Your task to perform on an android device: Do I have any events this weekend? Image 0: 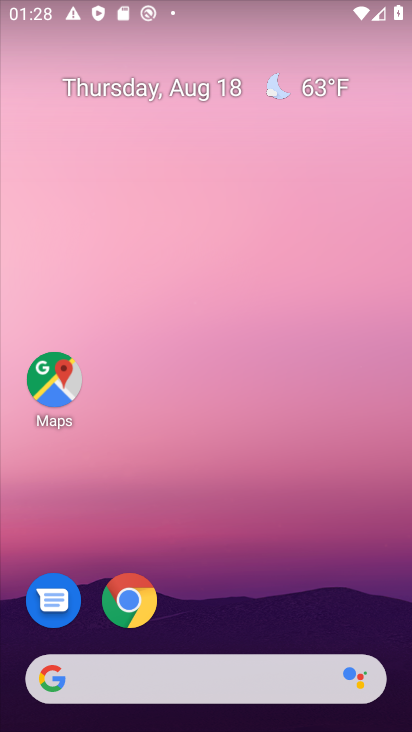
Step 0: drag from (263, 571) to (211, 160)
Your task to perform on an android device: Do I have any events this weekend? Image 1: 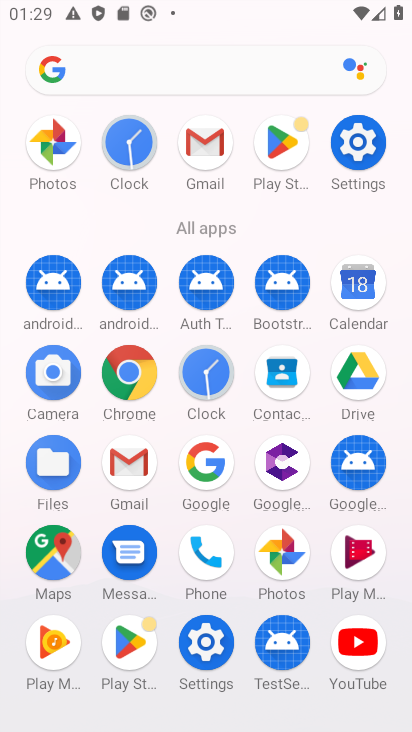
Step 1: click (360, 281)
Your task to perform on an android device: Do I have any events this weekend? Image 2: 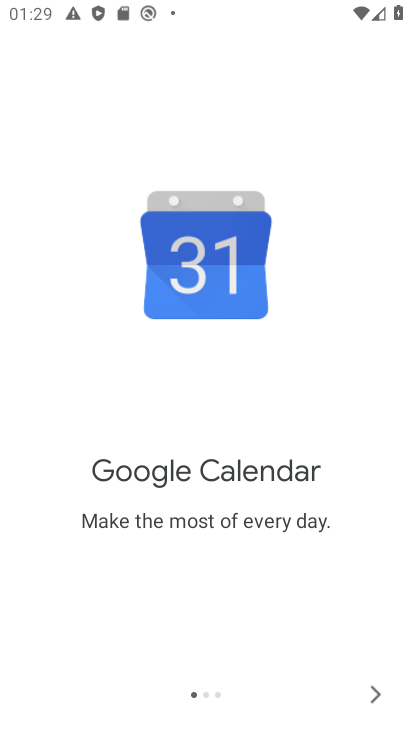
Step 2: click (375, 688)
Your task to perform on an android device: Do I have any events this weekend? Image 3: 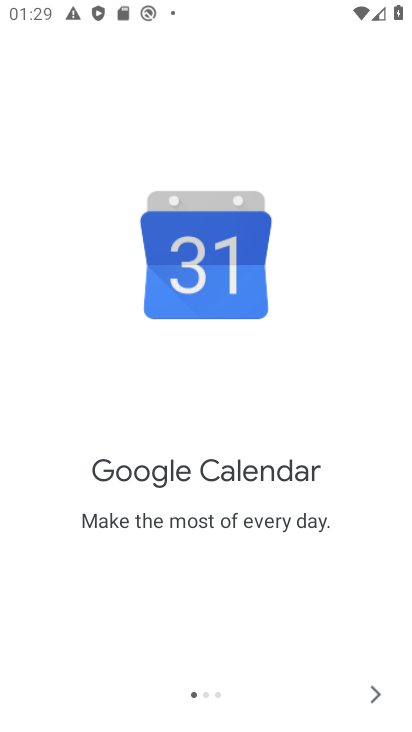
Step 3: click (375, 688)
Your task to perform on an android device: Do I have any events this weekend? Image 4: 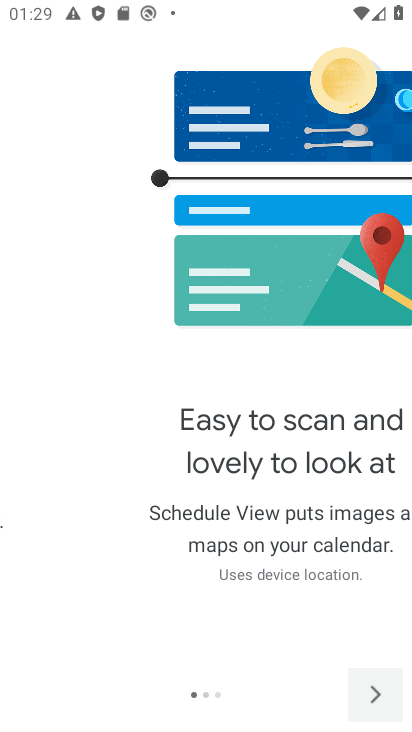
Step 4: click (375, 688)
Your task to perform on an android device: Do I have any events this weekend? Image 5: 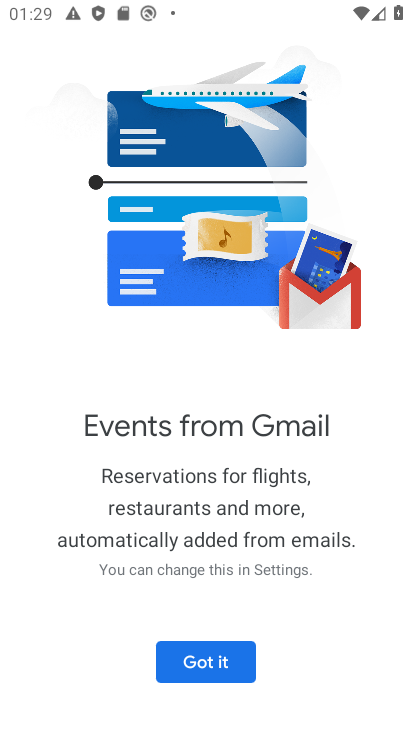
Step 5: click (209, 660)
Your task to perform on an android device: Do I have any events this weekend? Image 6: 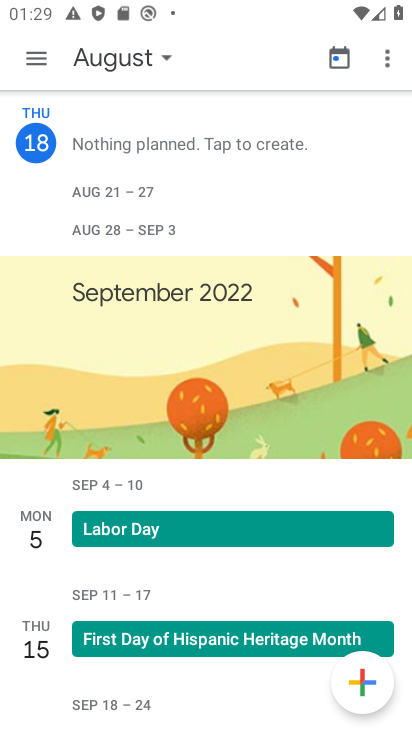
Step 6: click (39, 58)
Your task to perform on an android device: Do I have any events this weekend? Image 7: 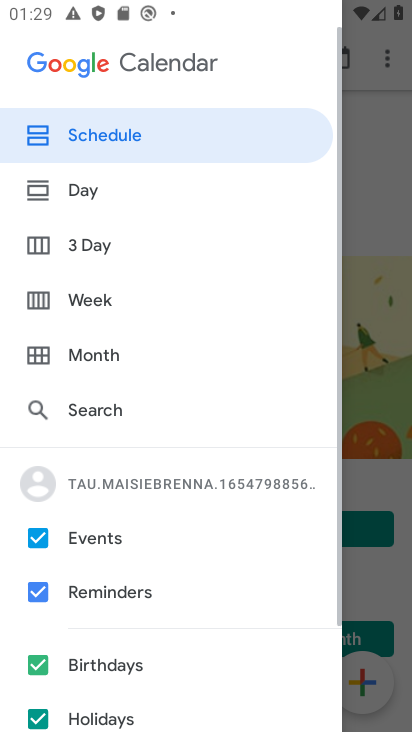
Step 7: click (86, 297)
Your task to perform on an android device: Do I have any events this weekend? Image 8: 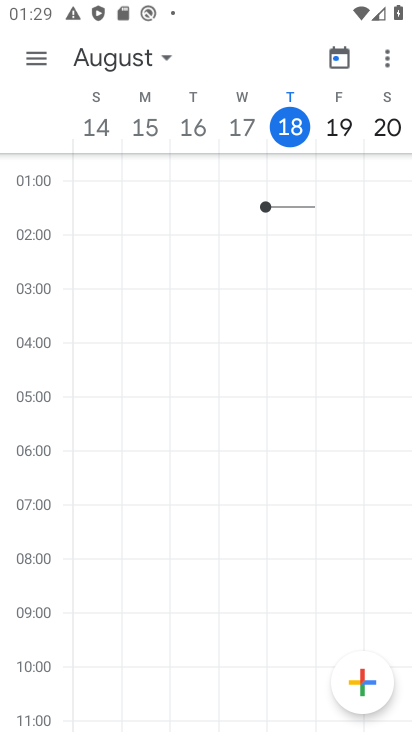
Step 8: task complete